Your task to perform on an android device: turn notification dots off Image 0: 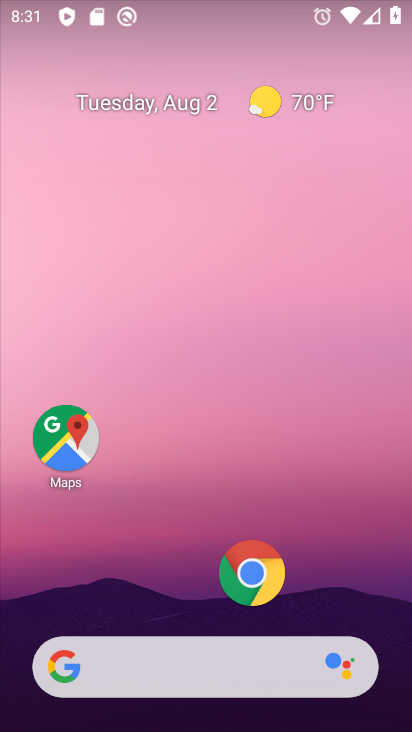
Step 0: press home button
Your task to perform on an android device: turn notification dots off Image 1: 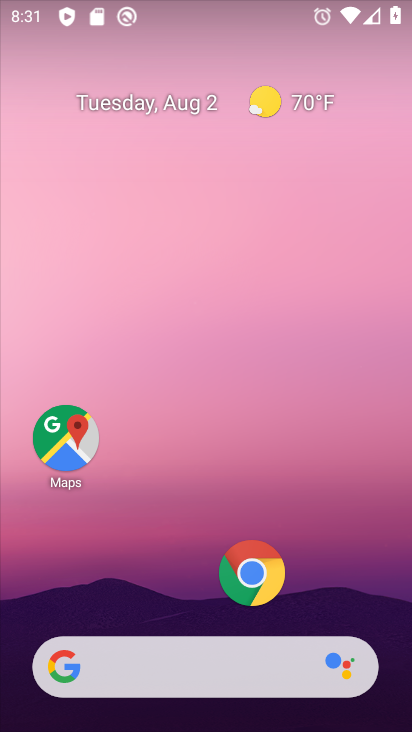
Step 1: drag from (186, 615) to (165, 84)
Your task to perform on an android device: turn notification dots off Image 2: 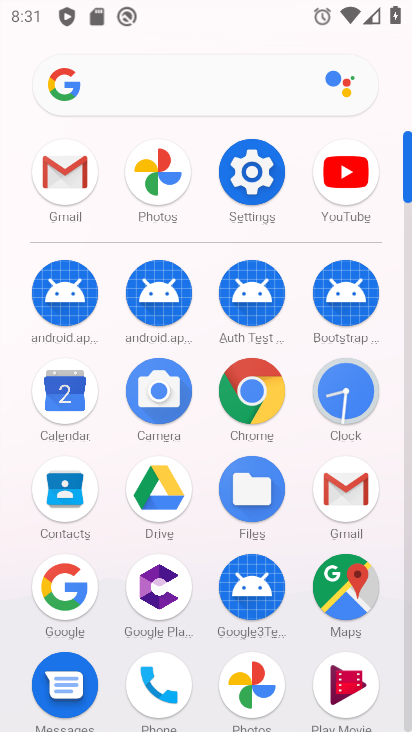
Step 2: click (251, 167)
Your task to perform on an android device: turn notification dots off Image 3: 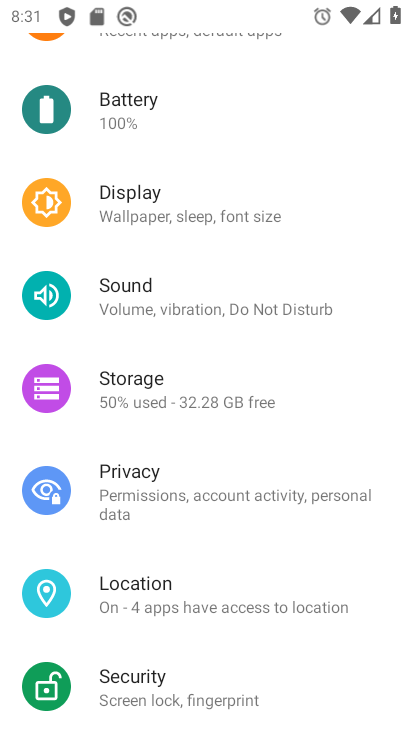
Step 3: drag from (180, 73) to (227, 520)
Your task to perform on an android device: turn notification dots off Image 4: 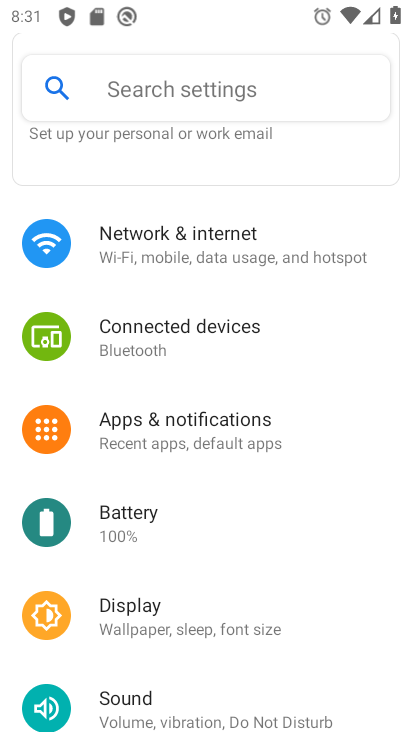
Step 4: click (83, 422)
Your task to perform on an android device: turn notification dots off Image 5: 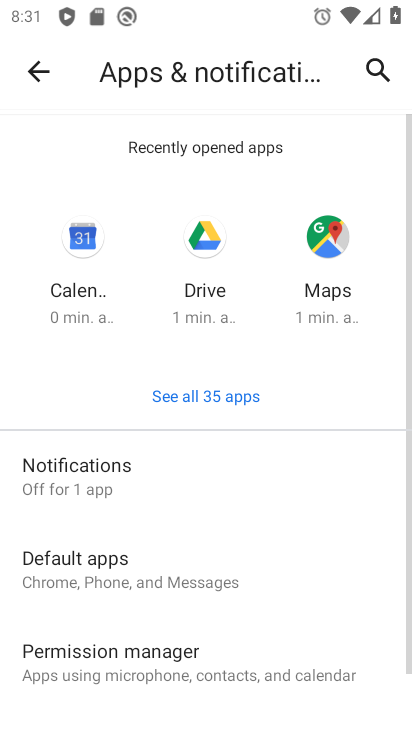
Step 5: click (143, 474)
Your task to perform on an android device: turn notification dots off Image 6: 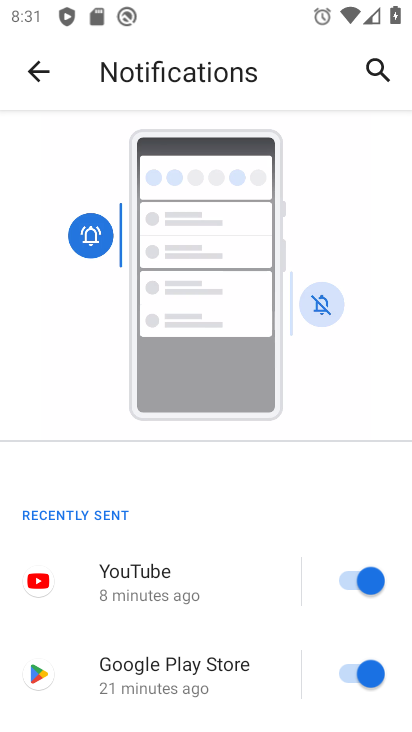
Step 6: drag from (260, 642) to (256, 113)
Your task to perform on an android device: turn notification dots off Image 7: 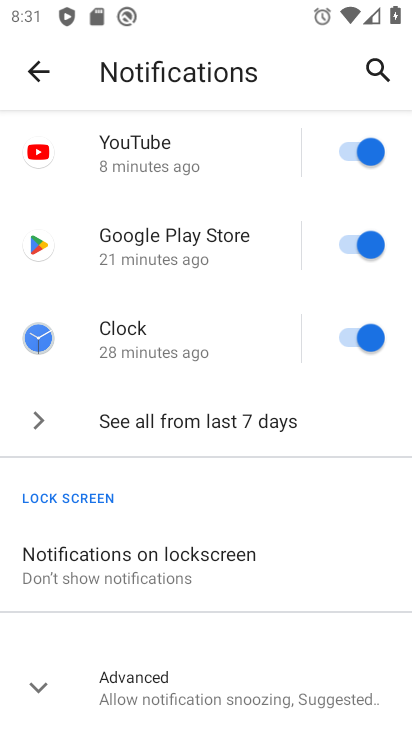
Step 7: click (33, 685)
Your task to perform on an android device: turn notification dots off Image 8: 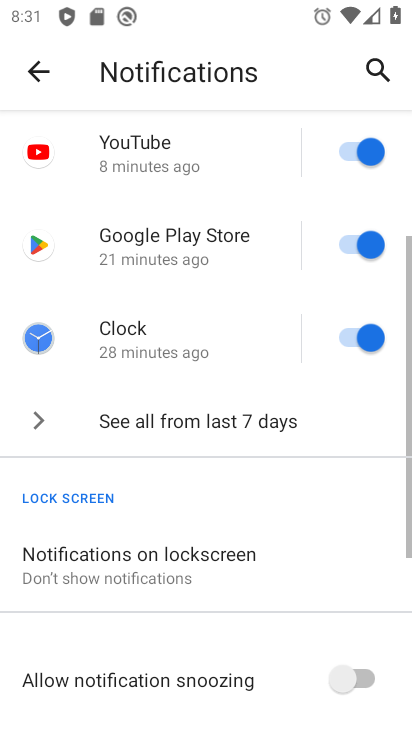
Step 8: drag from (179, 674) to (209, 119)
Your task to perform on an android device: turn notification dots off Image 9: 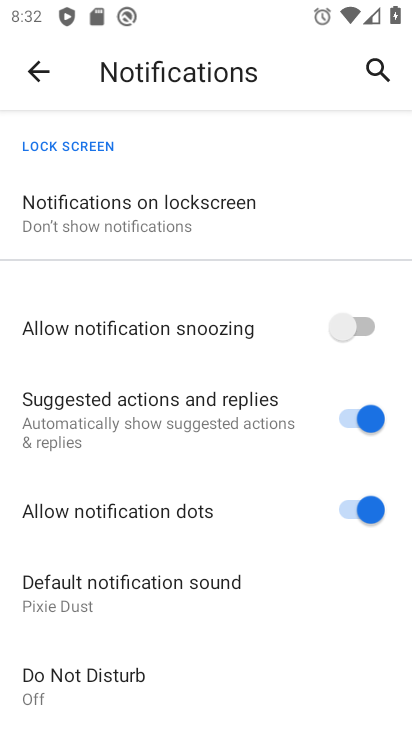
Step 9: click (354, 503)
Your task to perform on an android device: turn notification dots off Image 10: 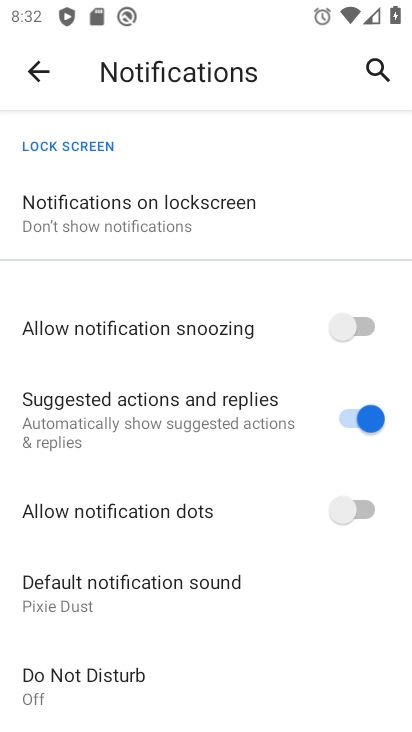
Step 10: task complete